Your task to perform on an android device: Open calendar and show me the third week of next month Image 0: 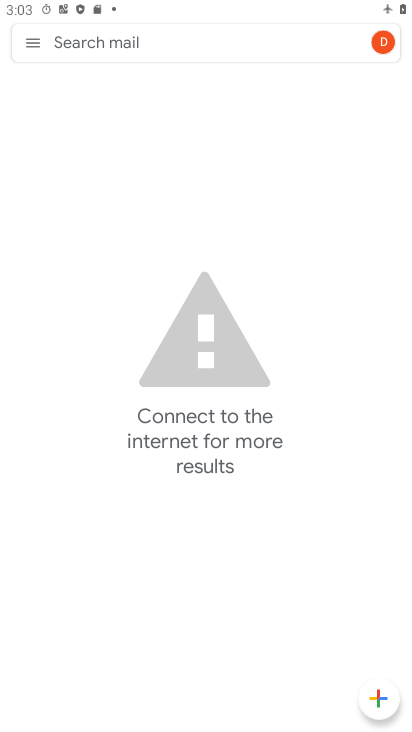
Step 0: press home button
Your task to perform on an android device: Open calendar and show me the third week of next month Image 1: 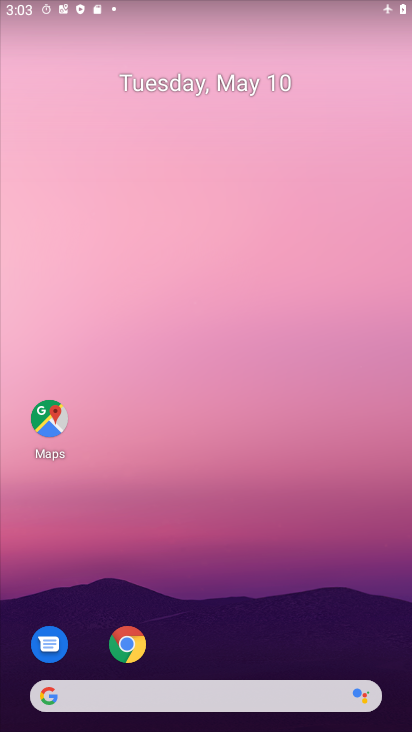
Step 1: drag from (279, 621) to (280, 146)
Your task to perform on an android device: Open calendar and show me the third week of next month Image 2: 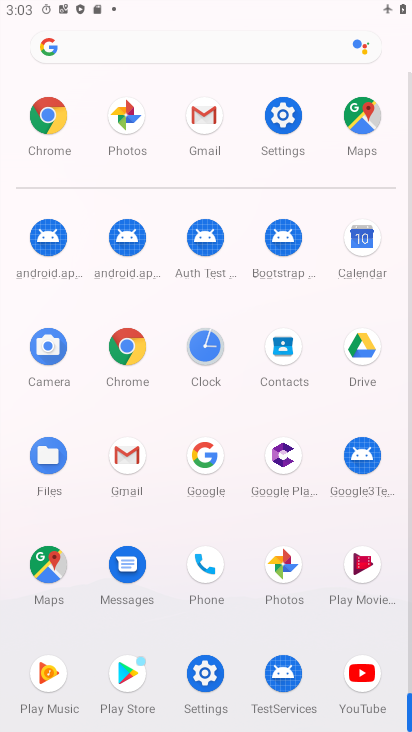
Step 2: click (354, 263)
Your task to perform on an android device: Open calendar and show me the third week of next month Image 3: 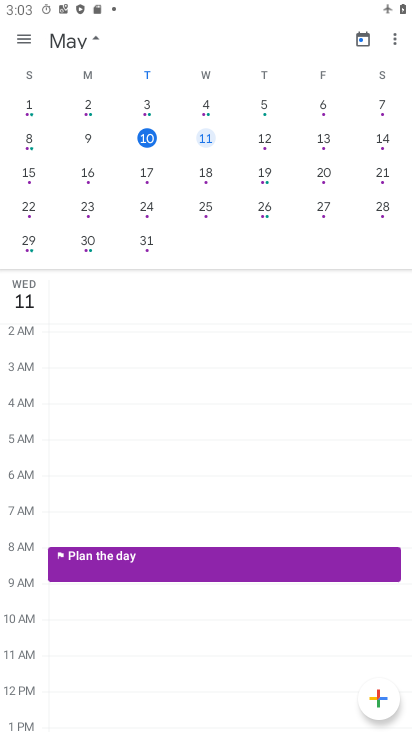
Step 3: drag from (320, 179) to (9, 209)
Your task to perform on an android device: Open calendar and show me the third week of next month Image 4: 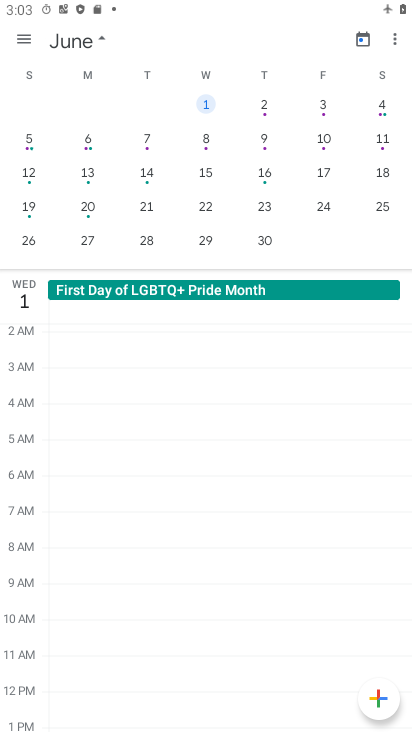
Step 4: click (26, 184)
Your task to perform on an android device: Open calendar and show me the third week of next month Image 5: 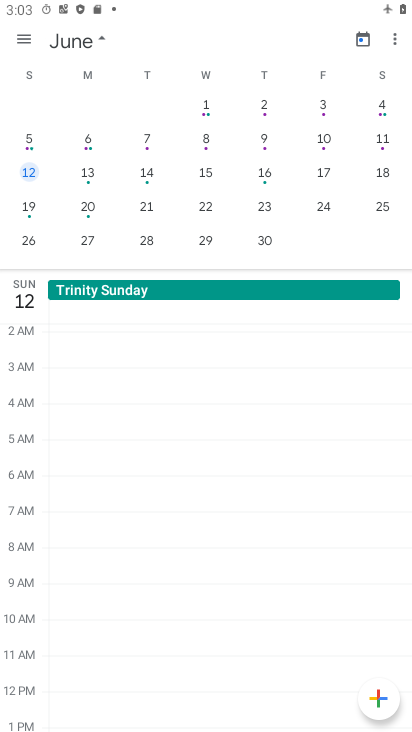
Step 5: click (27, 47)
Your task to perform on an android device: Open calendar and show me the third week of next month Image 6: 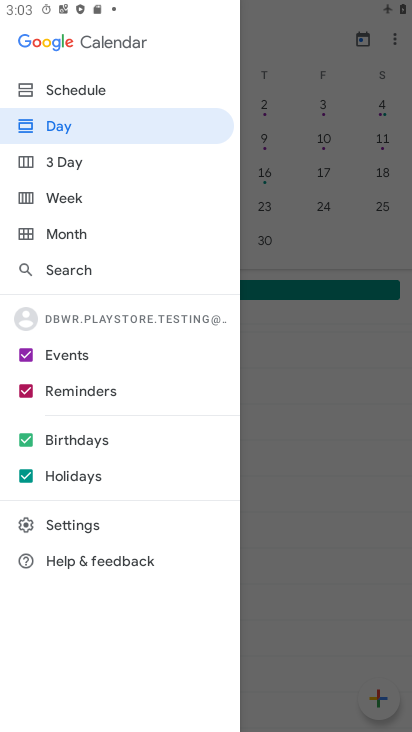
Step 6: click (63, 197)
Your task to perform on an android device: Open calendar and show me the third week of next month Image 7: 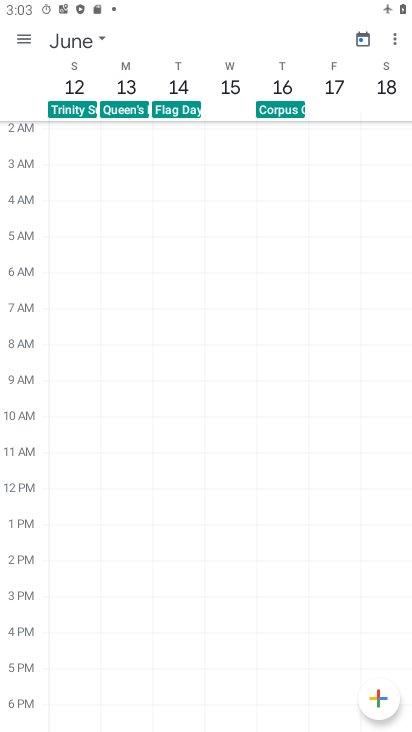
Step 7: task complete